Your task to perform on an android device: change the clock display to digital Image 0: 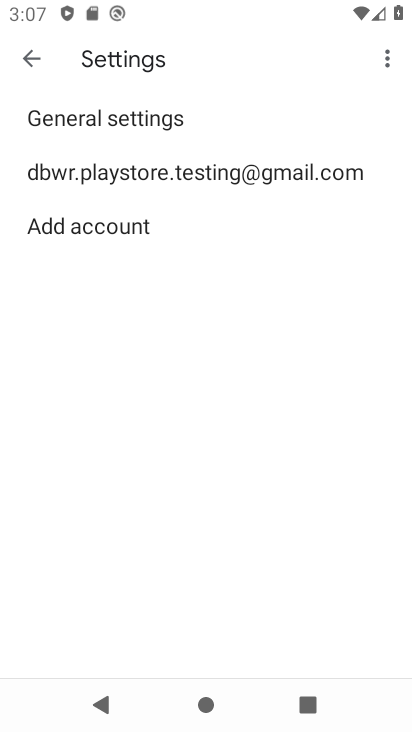
Step 0: press home button
Your task to perform on an android device: change the clock display to digital Image 1: 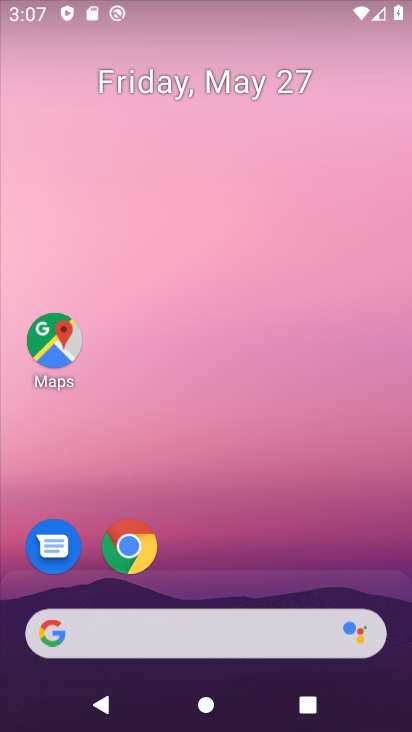
Step 1: drag from (232, 592) to (349, 94)
Your task to perform on an android device: change the clock display to digital Image 2: 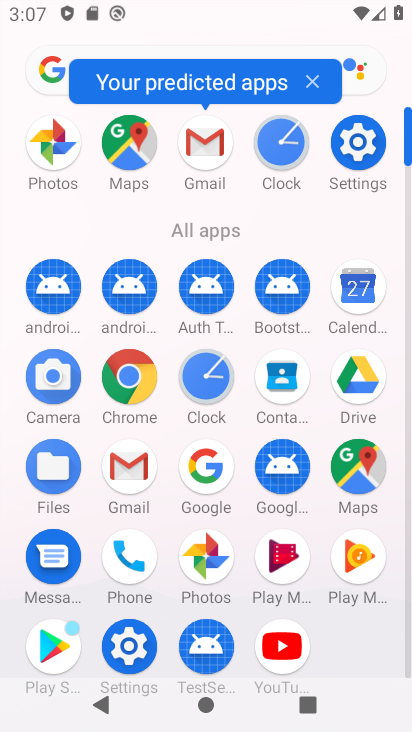
Step 2: click (199, 385)
Your task to perform on an android device: change the clock display to digital Image 3: 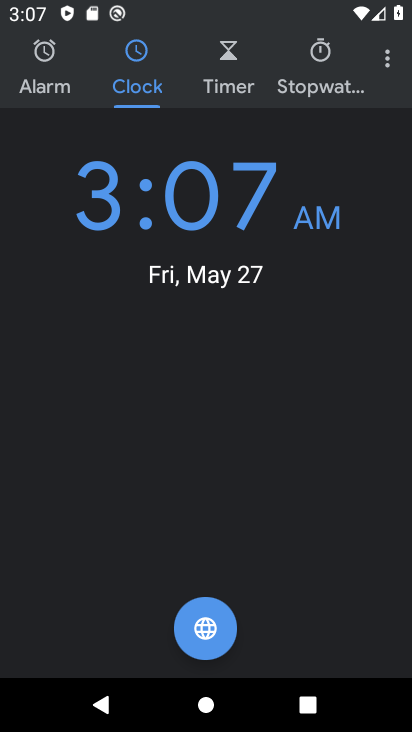
Step 3: click (373, 54)
Your task to perform on an android device: change the clock display to digital Image 4: 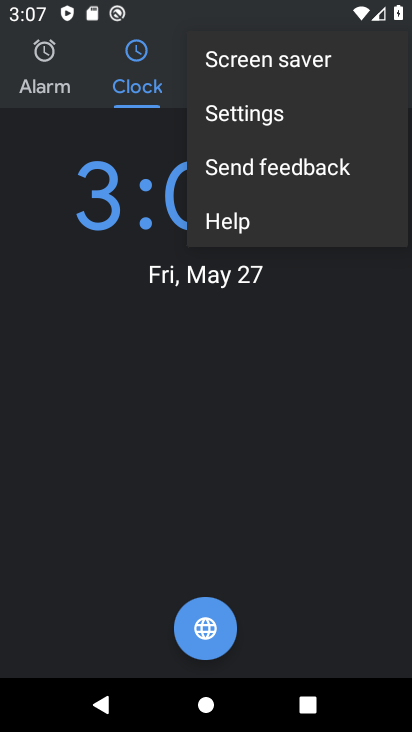
Step 4: click (346, 112)
Your task to perform on an android device: change the clock display to digital Image 5: 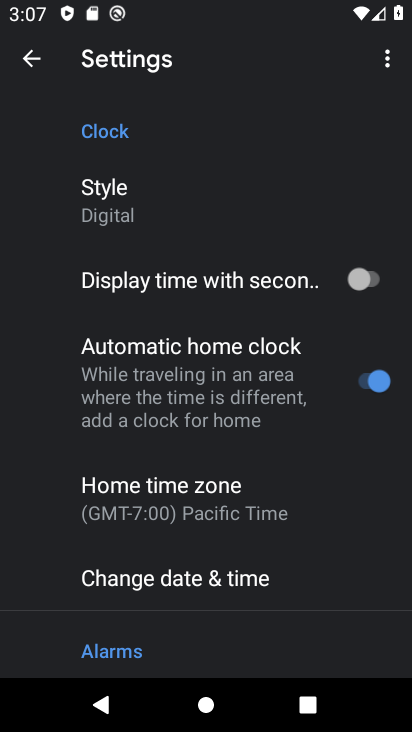
Step 5: task complete